Your task to perform on an android device: Open ESPN.com Image 0: 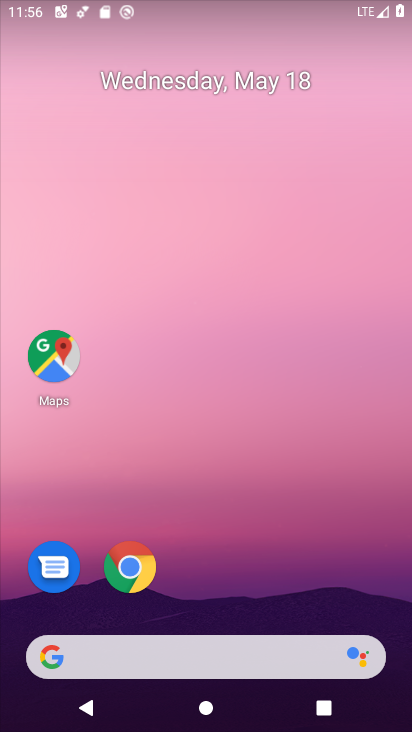
Step 0: click (110, 583)
Your task to perform on an android device: Open ESPN.com Image 1: 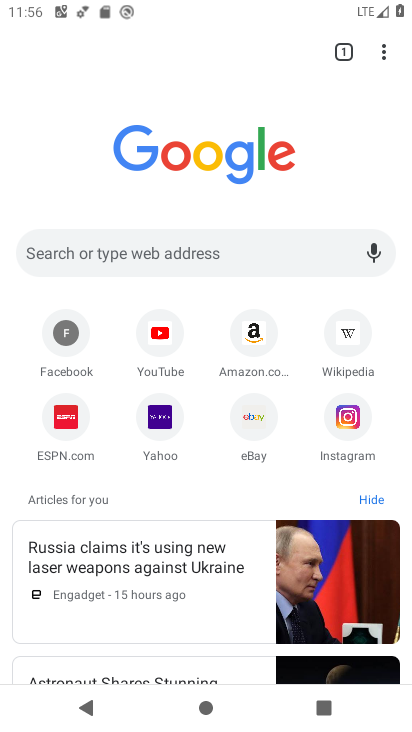
Step 1: click (69, 423)
Your task to perform on an android device: Open ESPN.com Image 2: 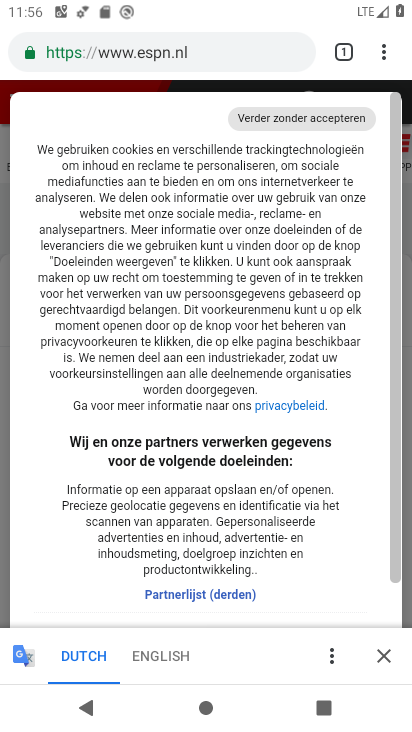
Step 2: task complete